Your task to perform on an android device: Show me recent news Image 0: 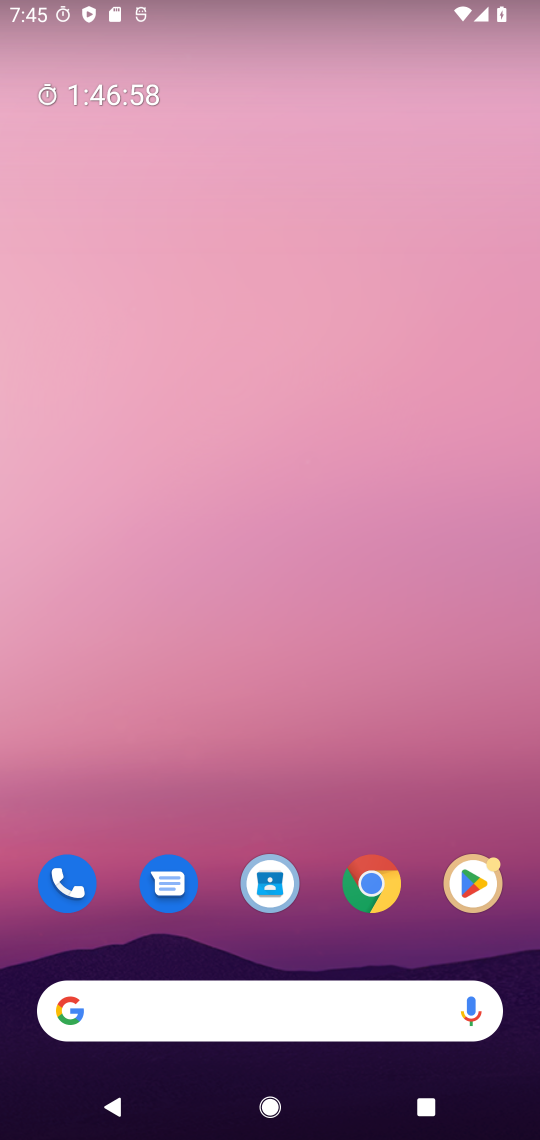
Step 0: drag from (354, 781) to (339, 165)
Your task to perform on an android device: Show me recent news Image 1: 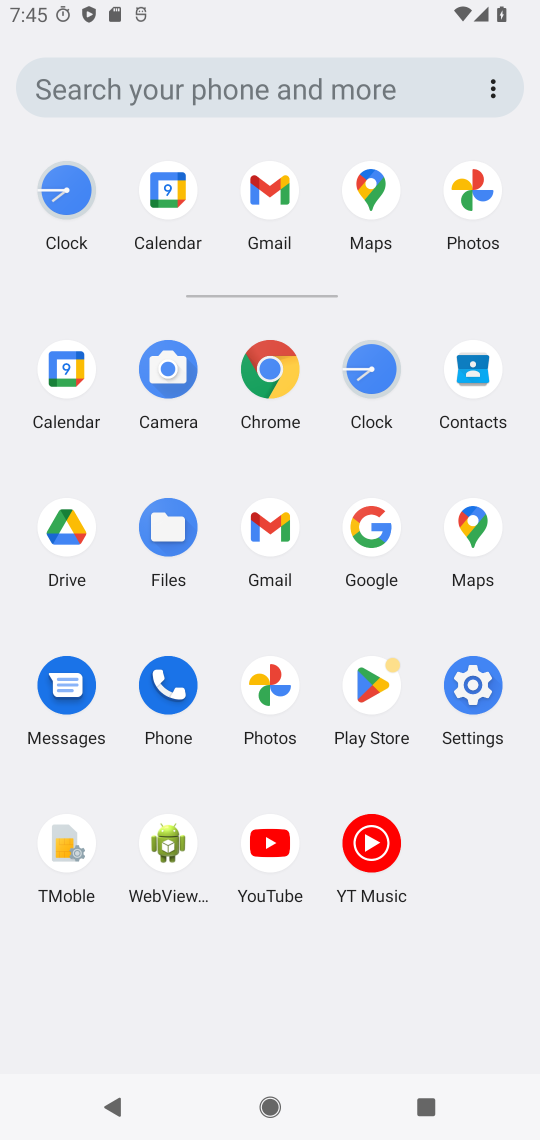
Step 1: click (373, 559)
Your task to perform on an android device: Show me recent news Image 2: 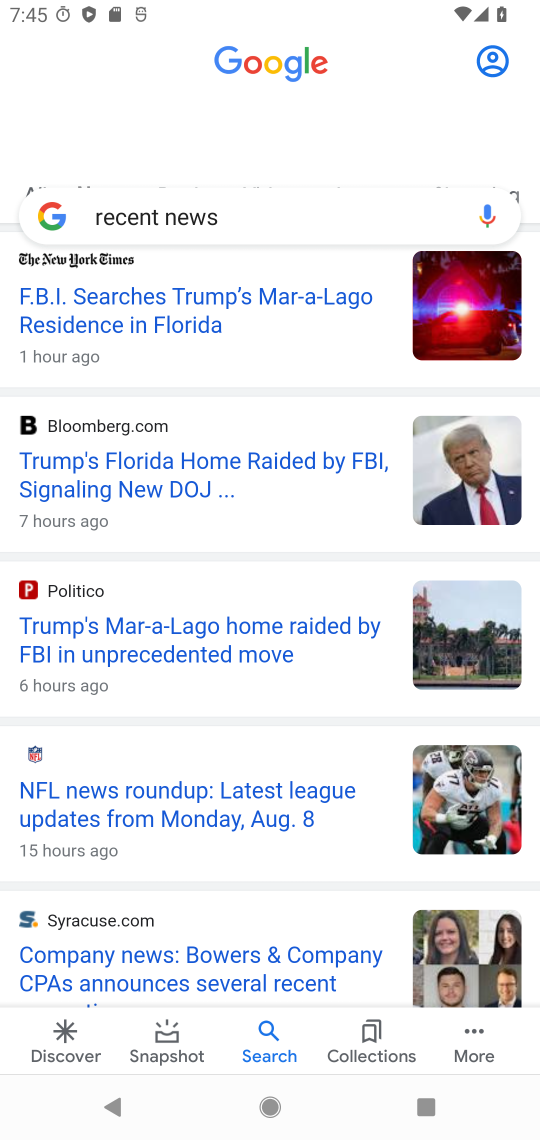
Step 2: task complete